Your task to perform on an android device: Show the shopping cart on ebay.com. Image 0: 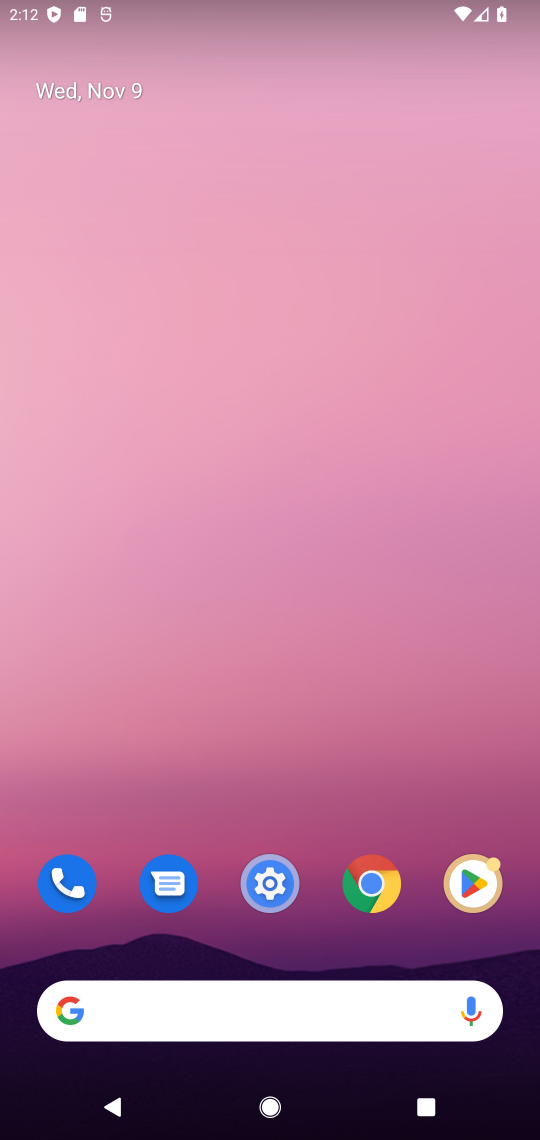
Step 0: click (372, 876)
Your task to perform on an android device: Show the shopping cart on ebay.com. Image 1: 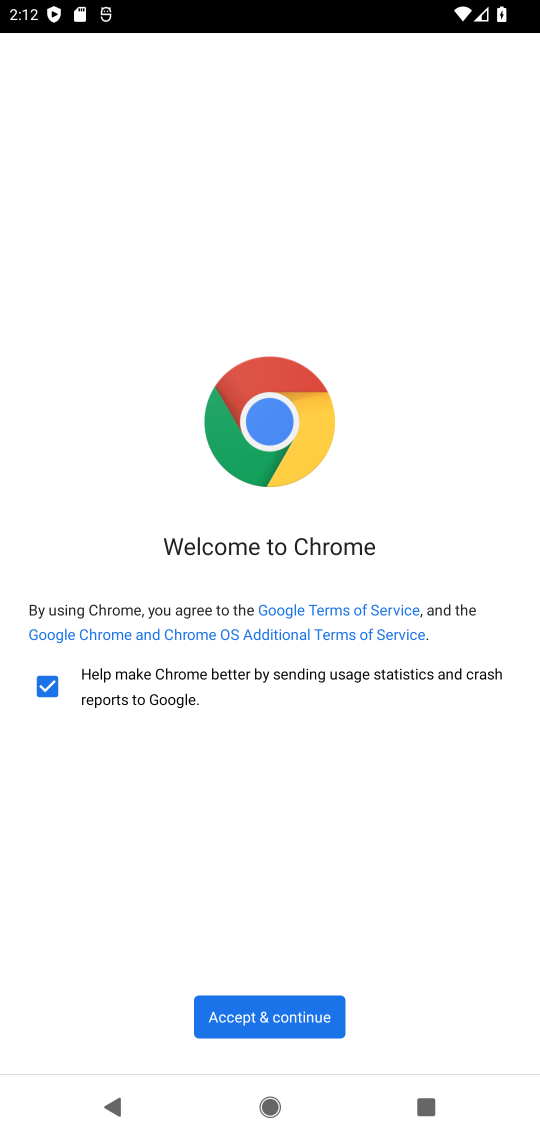
Step 1: click (305, 1002)
Your task to perform on an android device: Show the shopping cart on ebay.com. Image 2: 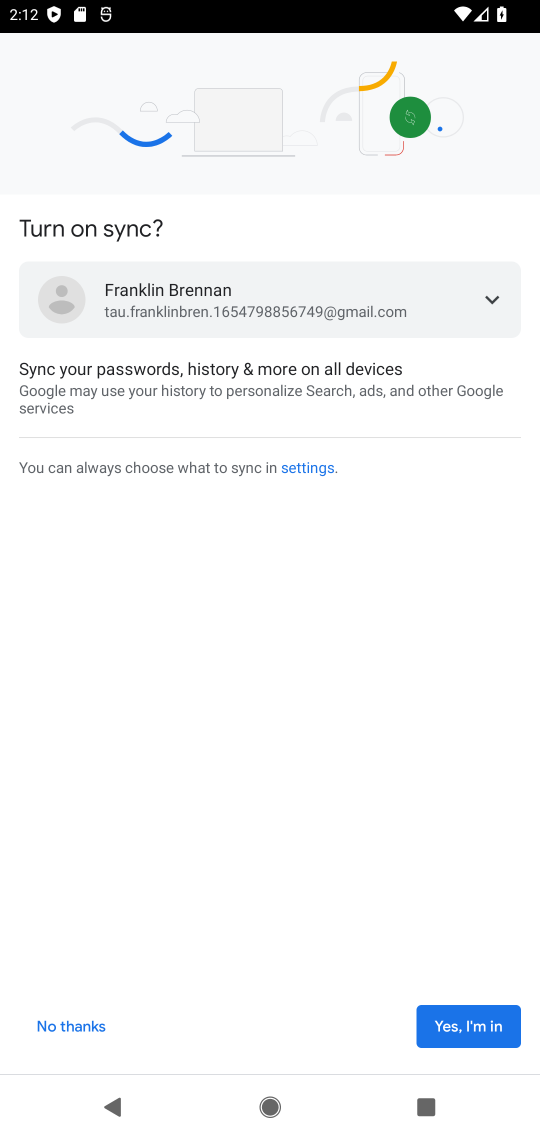
Step 2: click (441, 1023)
Your task to perform on an android device: Show the shopping cart on ebay.com. Image 3: 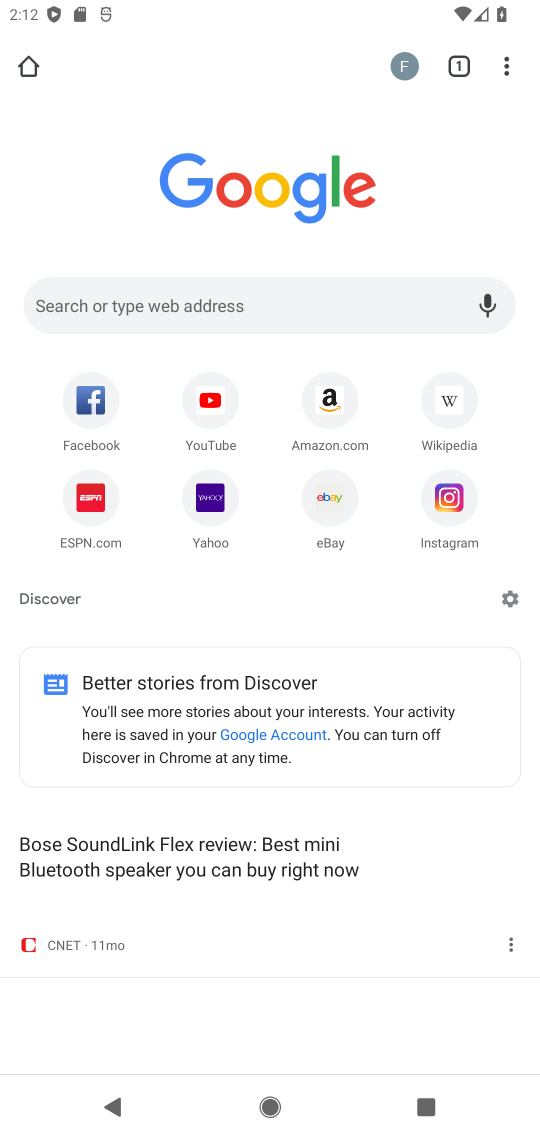
Step 3: click (316, 516)
Your task to perform on an android device: Show the shopping cart on ebay.com. Image 4: 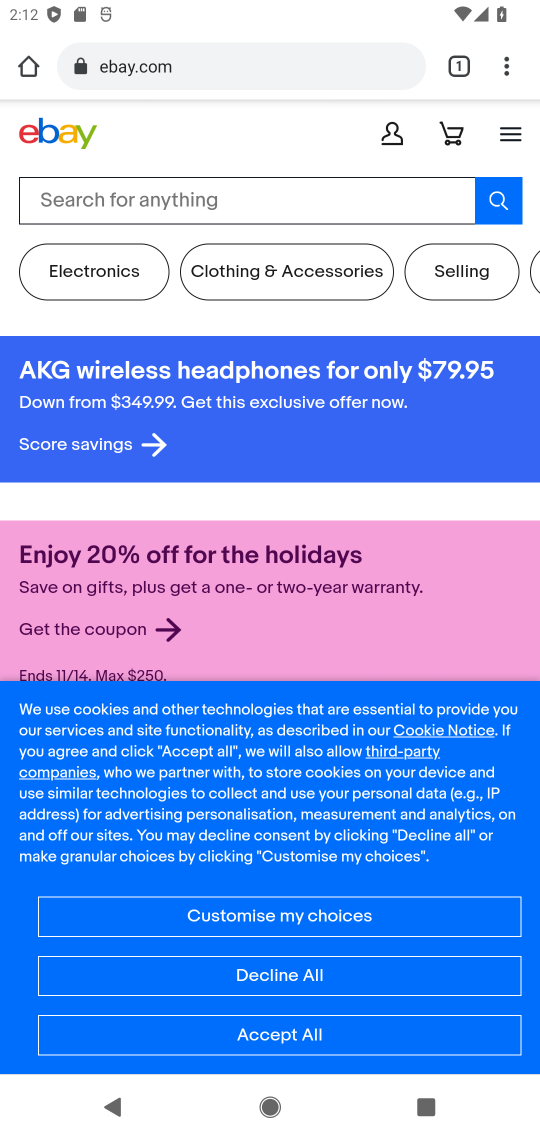
Step 4: click (276, 977)
Your task to perform on an android device: Show the shopping cart on ebay.com. Image 5: 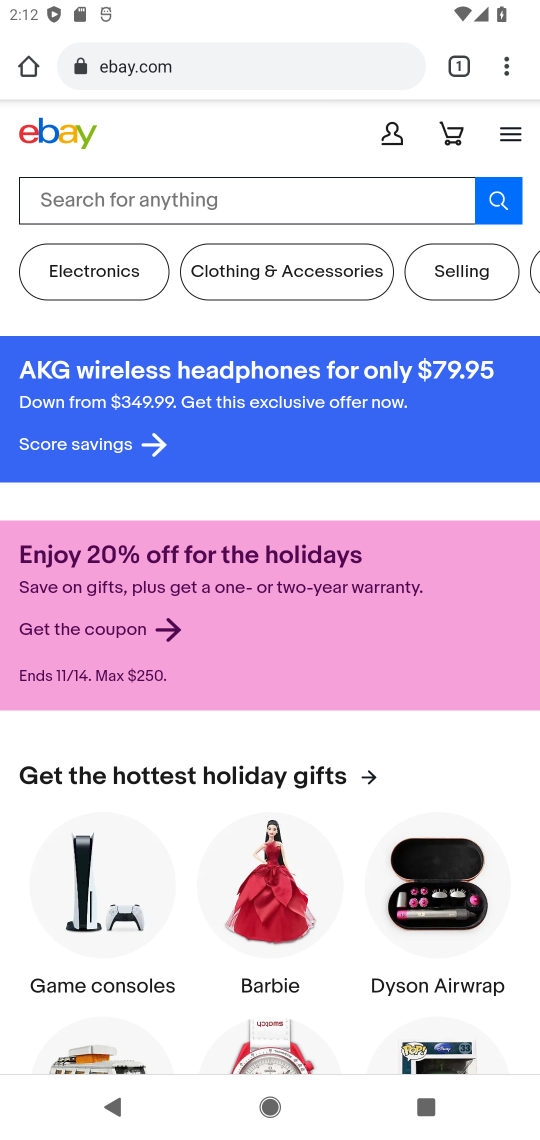
Step 5: task complete